Your task to perform on an android device: Turn off the flashlight Image 0: 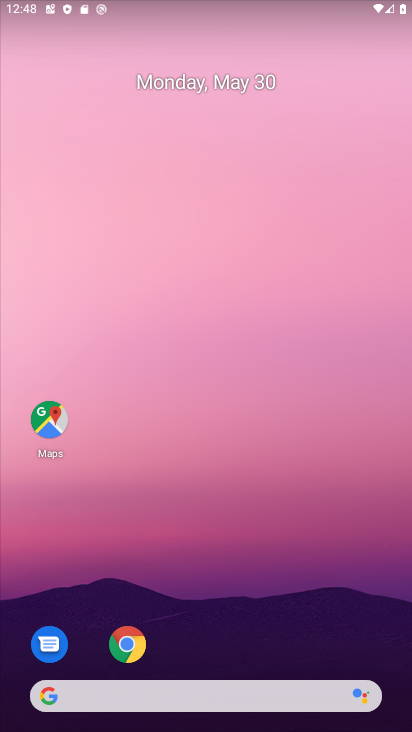
Step 0: click (323, 481)
Your task to perform on an android device: Turn off the flashlight Image 1: 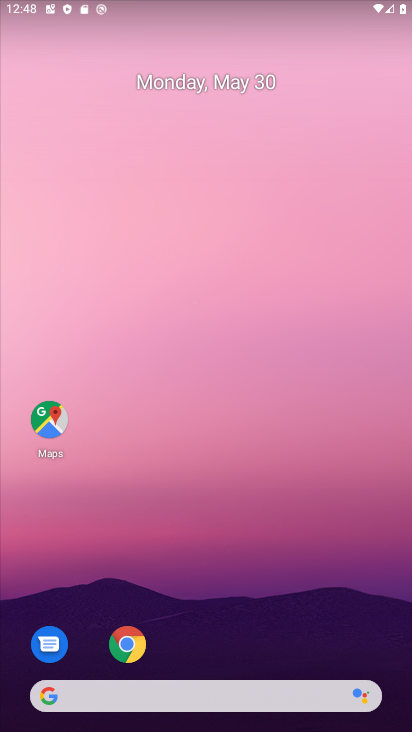
Step 1: drag from (346, 573) to (324, 195)
Your task to perform on an android device: Turn off the flashlight Image 2: 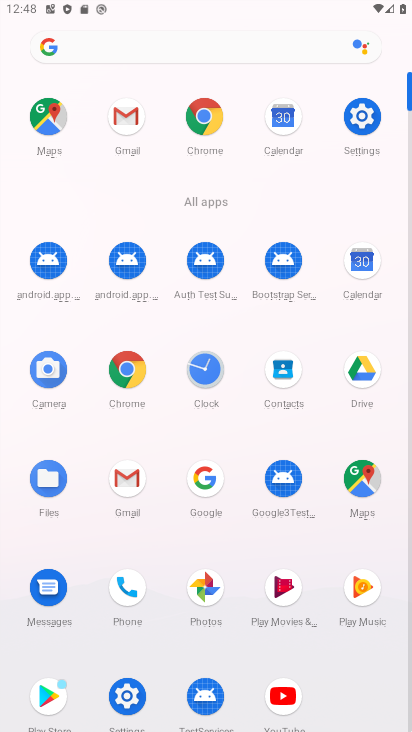
Step 2: click (368, 113)
Your task to perform on an android device: Turn off the flashlight Image 3: 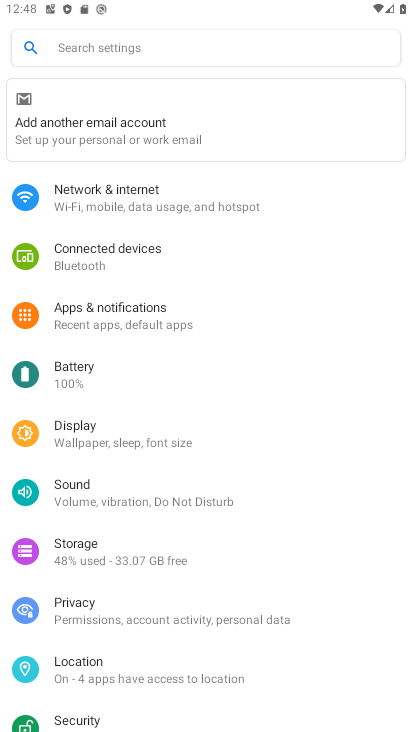
Step 3: click (212, 52)
Your task to perform on an android device: Turn off the flashlight Image 4: 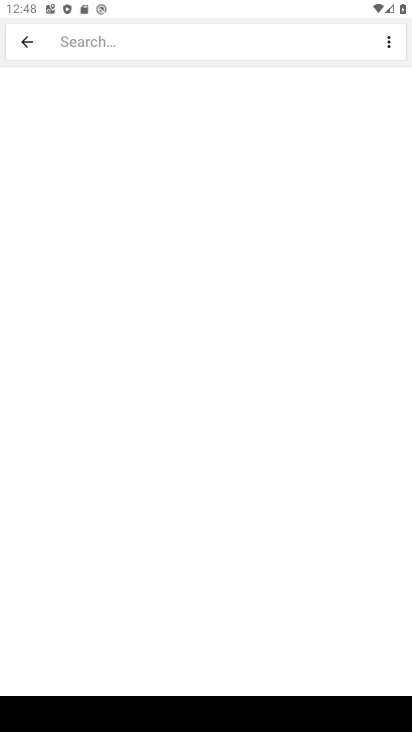
Step 4: type "flashlight"
Your task to perform on an android device: Turn off the flashlight Image 5: 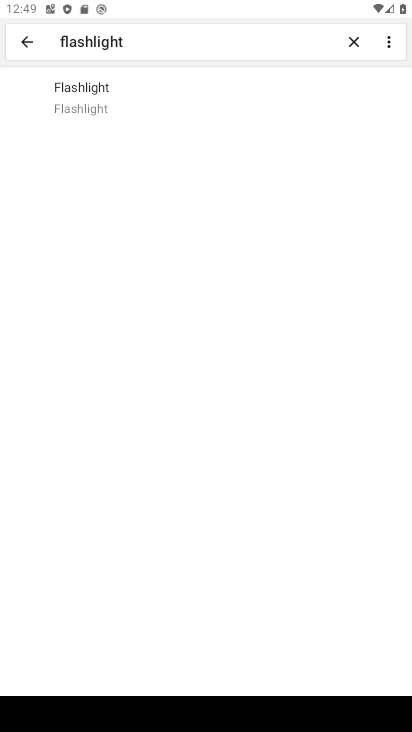
Step 5: click (84, 88)
Your task to perform on an android device: Turn off the flashlight Image 6: 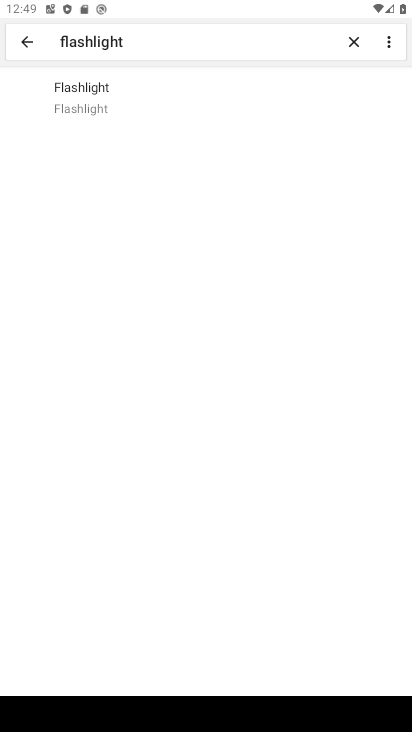
Step 6: task complete